Your task to perform on an android device: toggle data saver in the chrome app Image 0: 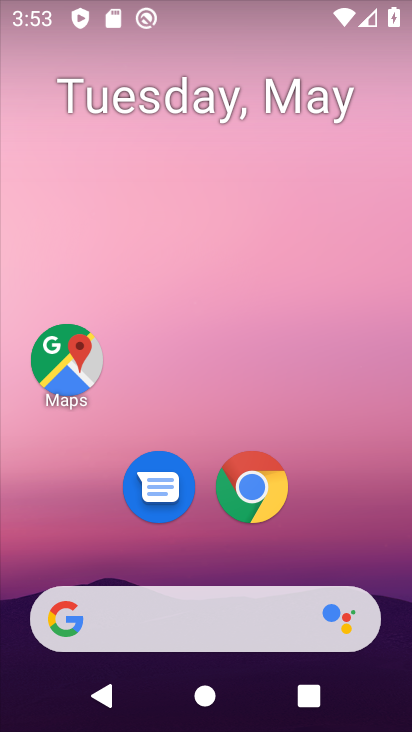
Step 0: click (259, 487)
Your task to perform on an android device: toggle data saver in the chrome app Image 1: 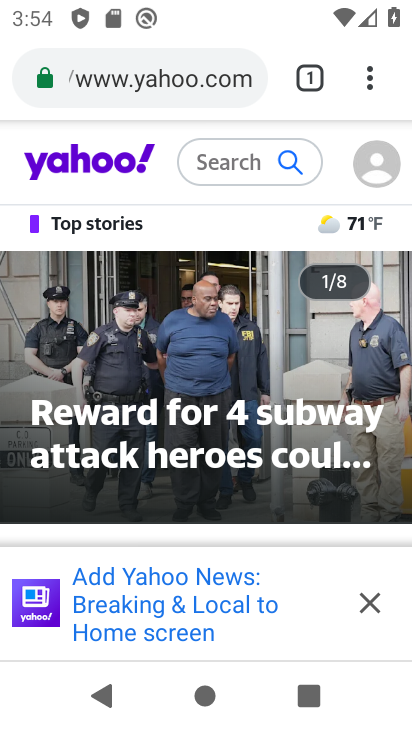
Step 1: click (369, 70)
Your task to perform on an android device: toggle data saver in the chrome app Image 2: 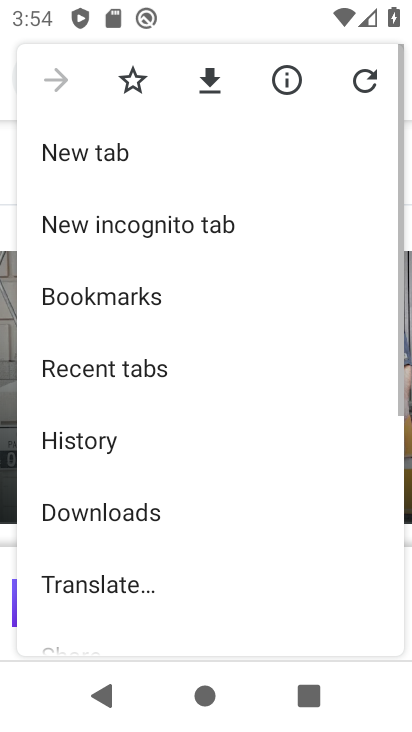
Step 2: drag from (130, 511) to (171, 42)
Your task to perform on an android device: toggle data saver in the chrome app Image 3: 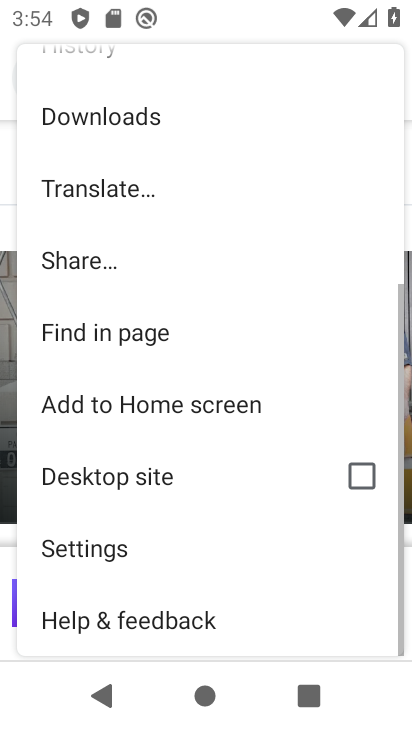
Step 3: click (108, 560)
Your task to perform on an android device: toggle data saver in the chrome app Image 4: 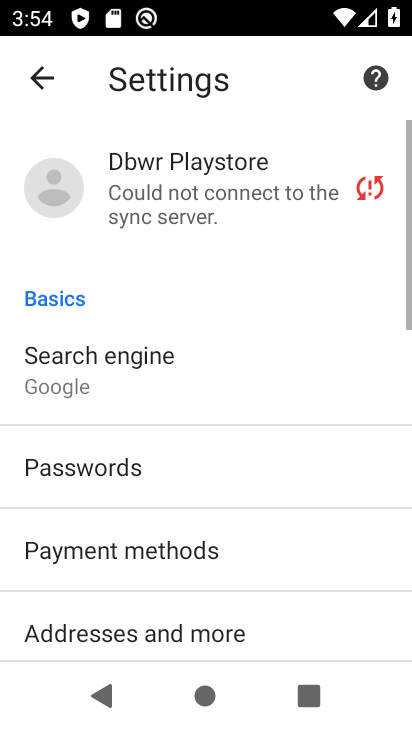
Step 4: drag from (114, 550) to (208, 118)
Your task to perform on an android device: toggle data saver in the chrome app Image 5: 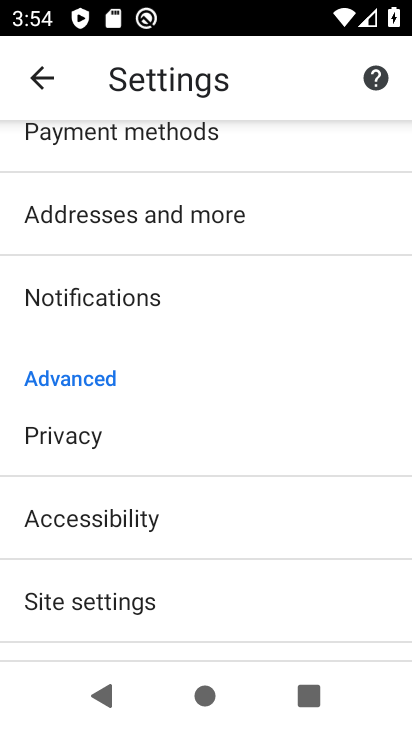
Step 5: drag from (183, 574) to (213, 217)
Your task to perform on an android device: toggle data saver in the chrome app Image 6: 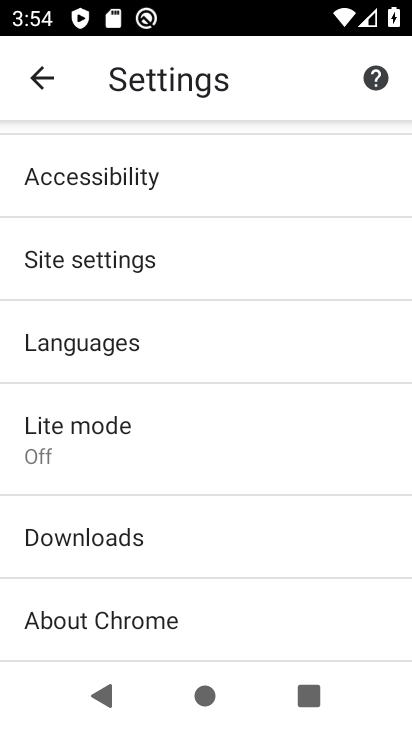
Step 6: click (155, 447)
Your task to perform on an android device: toggle data saver in the chrome app Image 7: 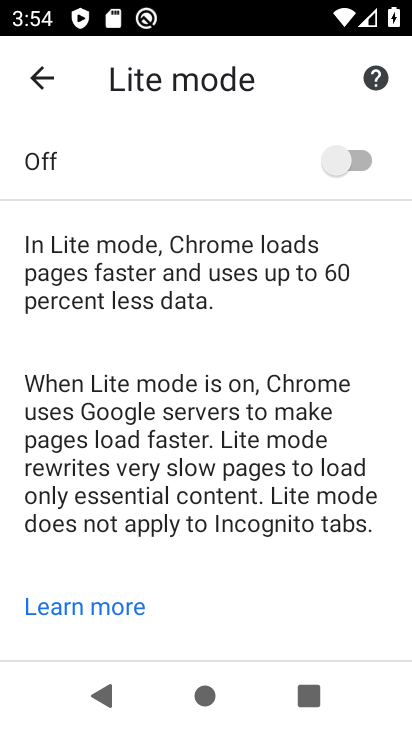
Step 7: click (362, 133)
Your task to perform on an android device: toggle data saver in the chrome app Image 8: 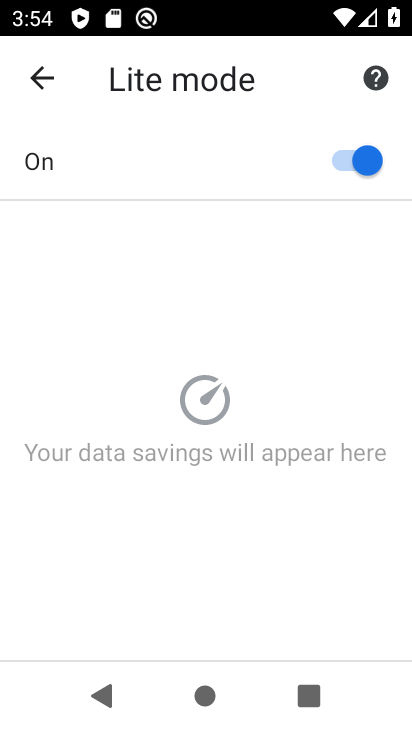
Step 8: task complete